Your task to perform on an android device: turn off translation in the chrome app Image 0: 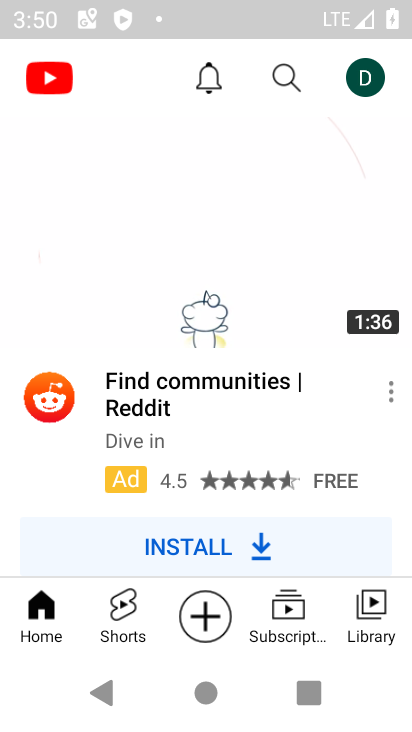
Step 0: press home button
Your task to perform on an android device: turn off translation in the chrome app Image 1: 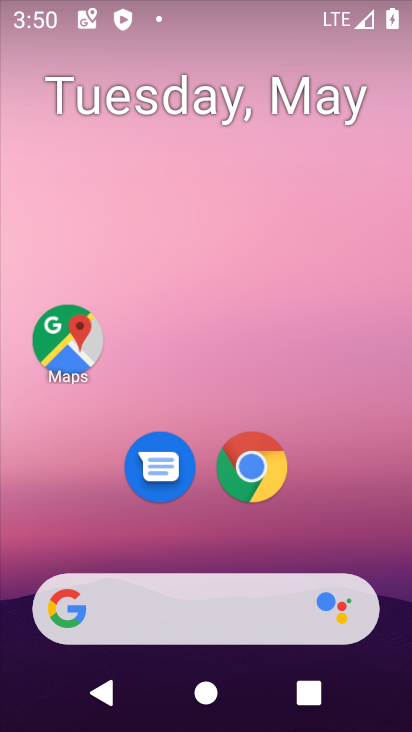
Step 1: click (245, 464)
Your task to perform on an android device: turn off translation in the chrome app Image 2: 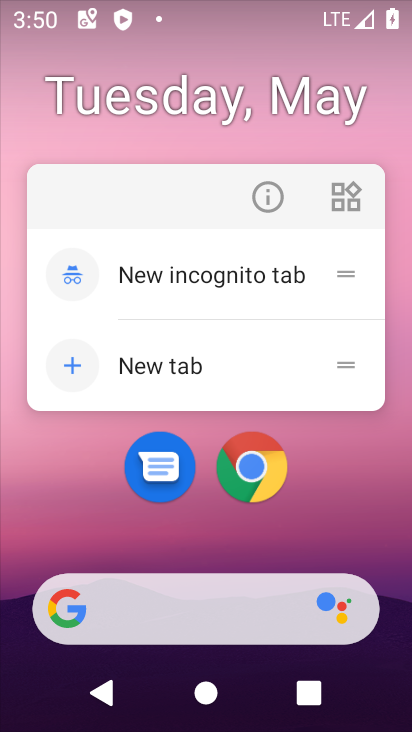
Step 2: click (265, 459)
Your task to perform on an android device: turn off translation in the chrome app Image 3: 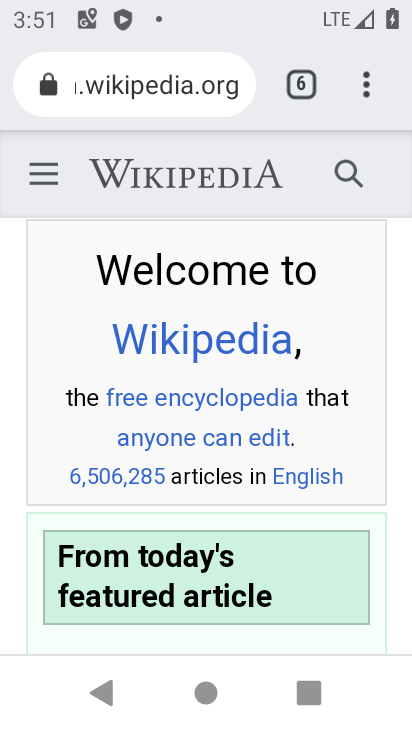
Step 3: click (369, 71)
Your task to perform on an android device: turn off translation in the chrome app Image 4: 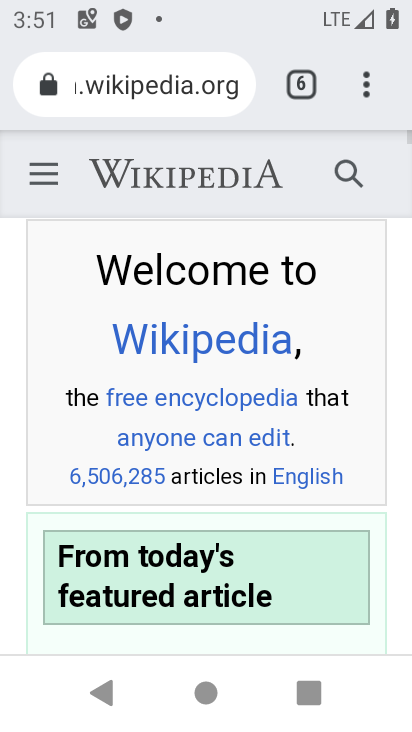
Step 4: drag from (368, 72) to (208, 507)
Your task to perform on an android device: turn off translation in the chrome app Image 5: 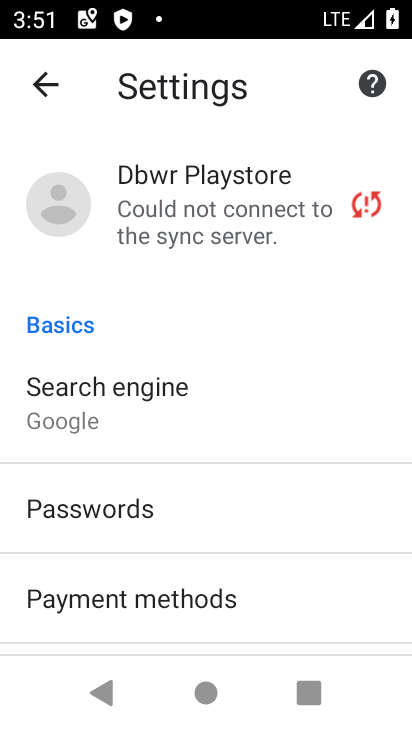
Step 5: drag from (351, 609) to (347, 211)
Your task to perform on an android device: turn off translation in the chrome app Image 6: 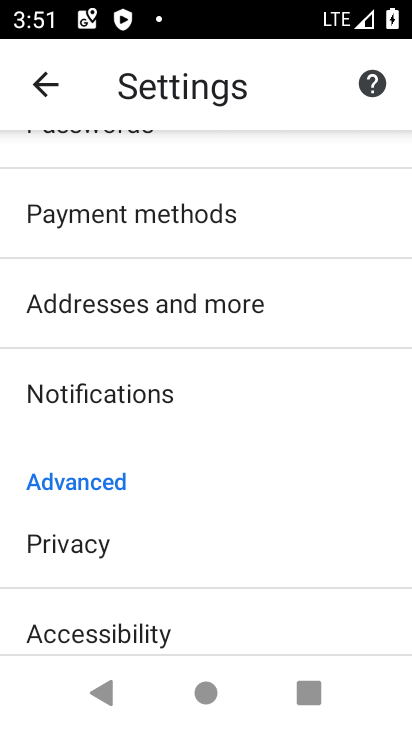
Step 6: drag from (359, 595) to (365, 187)
Your task to perform on an android device: turn off translation in the chrome app Image 7: 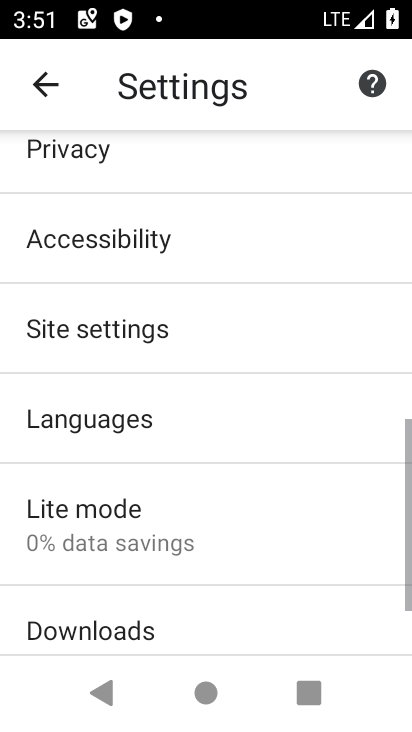
Step 7: click (135, 437)
Your task to perform on an android device: turn off translation in the chrome app Image 8: 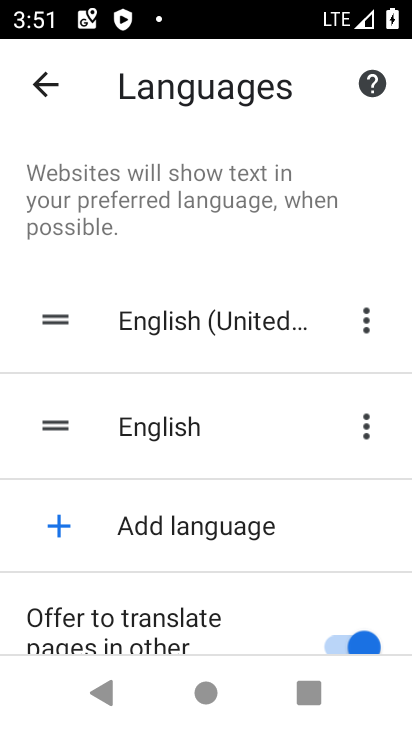
Step 8: drag from (182, 622) to (185, 441)
Your task to perform on an android device: turn off translation in the chrome app Image 9: 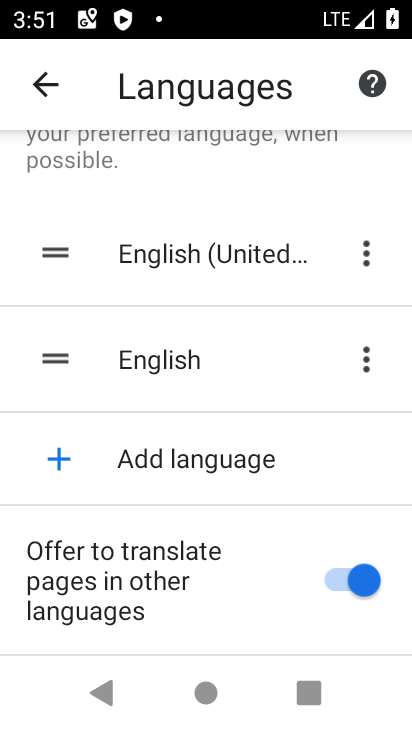
Step 9: click (336, 579)
Your task to perform on an android device: turn off translation in the chrome app Image 10: 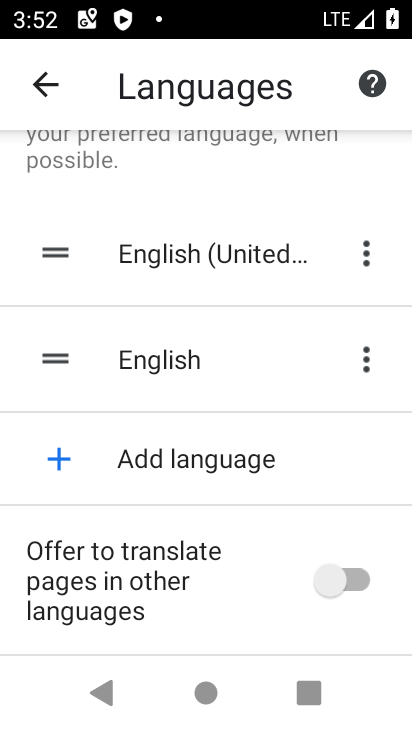
Step 10: task complete